Your task to perform on an android device: change the clock display to show seconds Image 0: 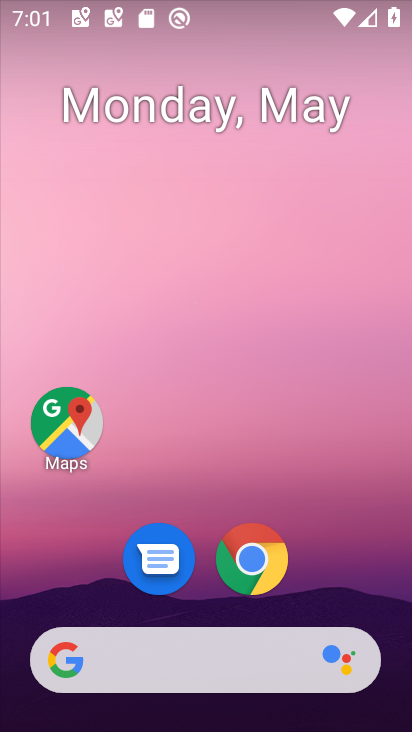
Step 0: drag from (368, 604) to (341, 248)
Your task to perform on an android device: change the clock display to show seconds Image 1: 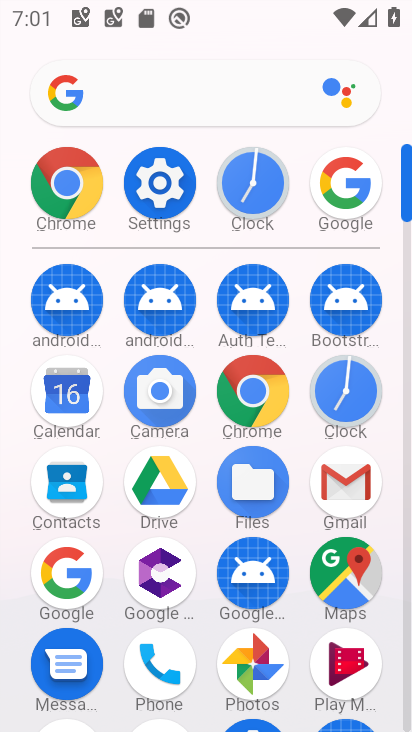
Step 1: click (334, 374)
Your task to perform on an android device: change the clock display to show seconds Image 2: 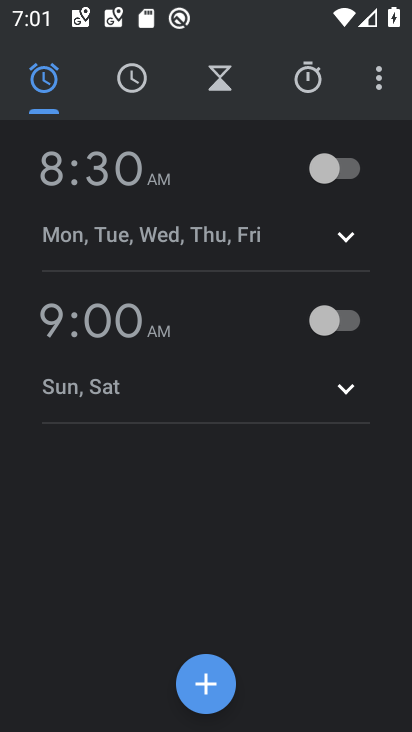
Step 2: click (386, 74)
Your task to perform on an android device: change the clock display to show seconds Image 3: 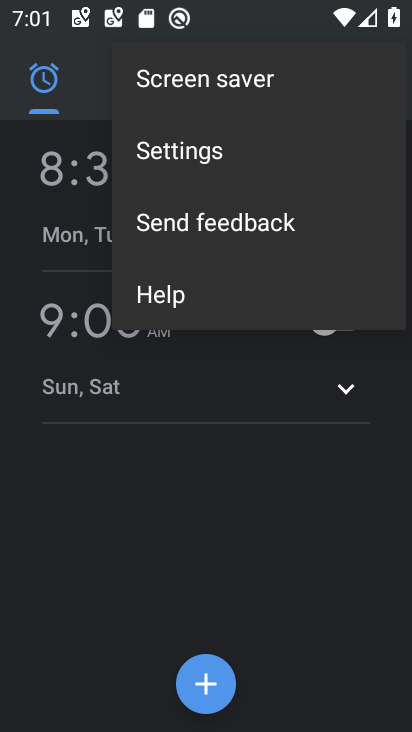
Step 3: click (333, 164)
Your task to perform on an android device: change the clock display to show seconds Image 4: 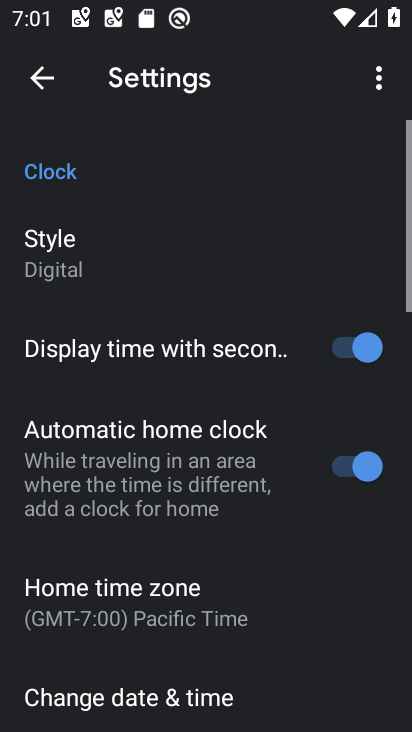
Step 4: click (330, 342)
Your task to perform on an android device: change the clock display to show seconds Image 5: 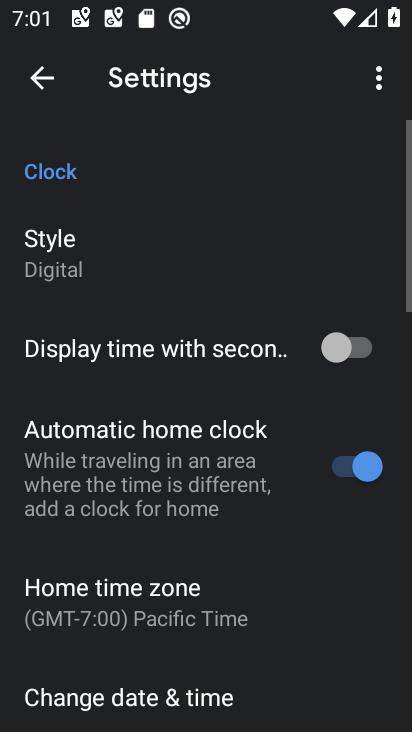
Step 5: task complete